Your task to perform on an android device: change notifications settings Image 0: 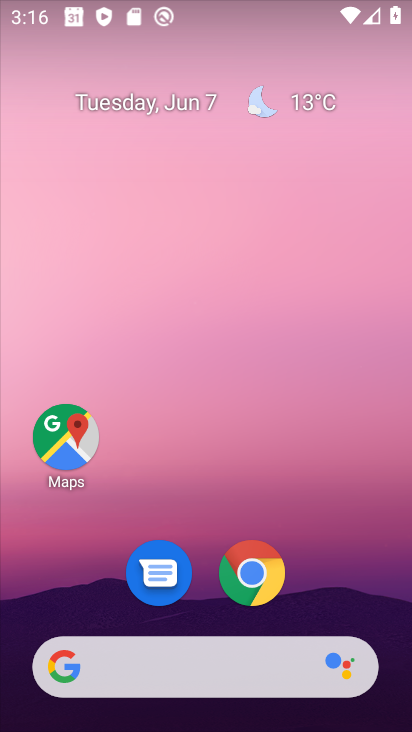
Step 0: drag from (345, 588) to (295, 257)
Your task to perform on an android device: change notifications settings Image 1: 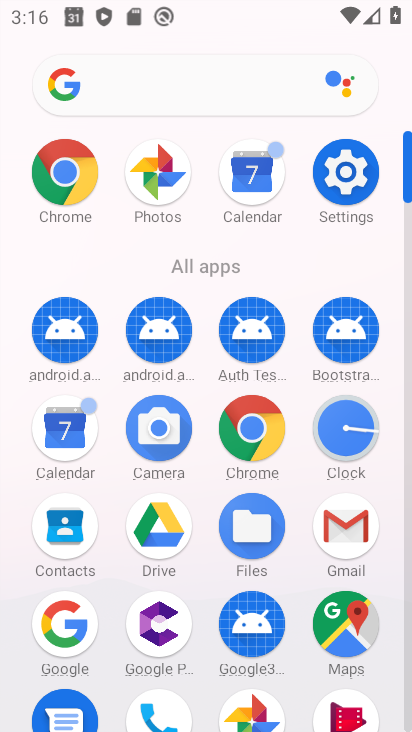
Step 1: click (339, 167)
Your task to perform on an android device: change notifications settings Image 2: 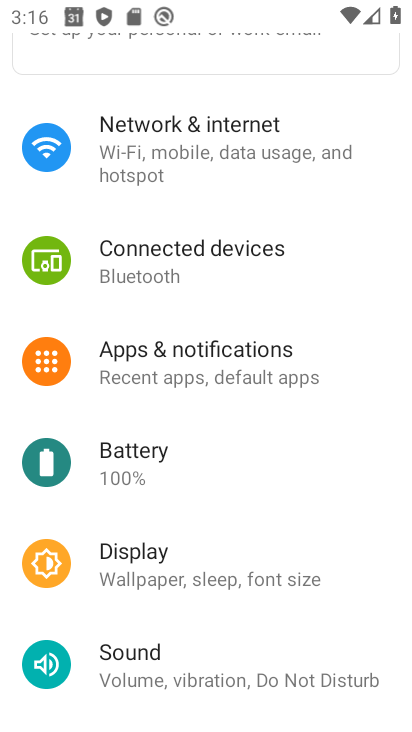
Step 2: click (301, 351)
Your task to perform on an android device: change notifications settings Image 3: 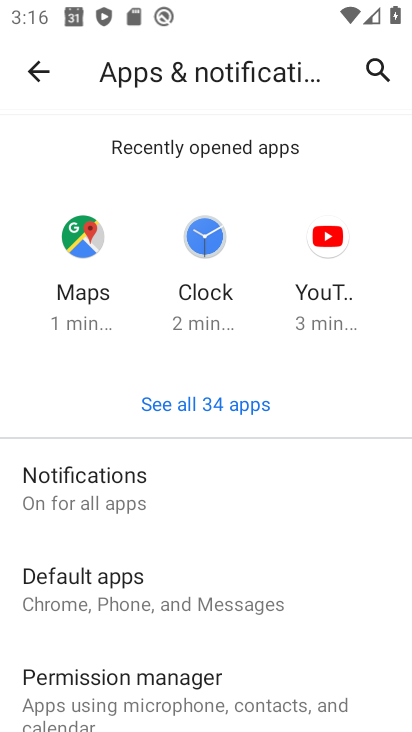
Step 3: click (260, 479)
Your task to perform on an android device: change notifications settings Image 4: 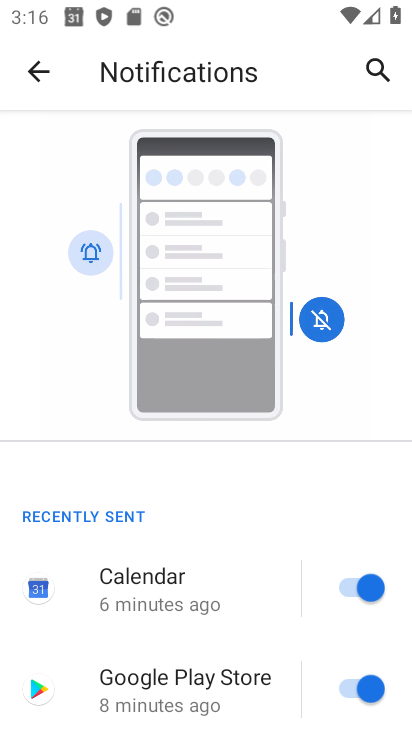
Step 4: drag from (310, 673) to (240, 122)
Your task to perform on an android device: change notifications settings Image 5: 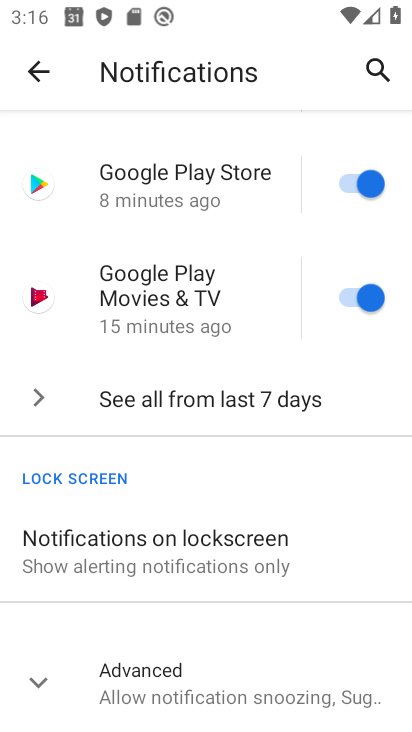
Step 5: drag from (261, 550) to (238, 431)
Your task to perform on an android device: change notifications settings Image 6: 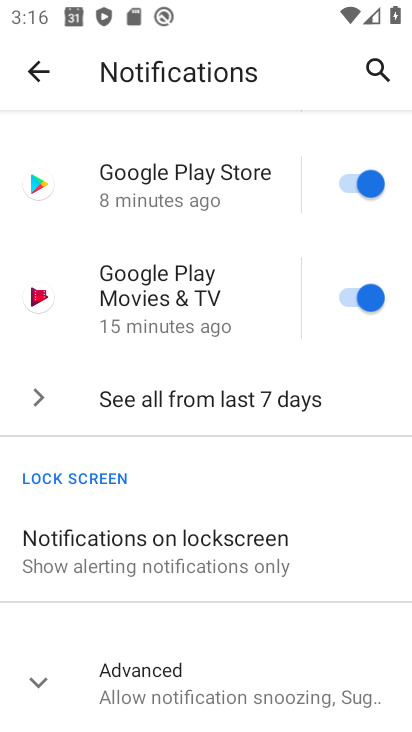
Step 6: click (275, 673)
Your task to perform on an android device: change notifications settings Image 7: 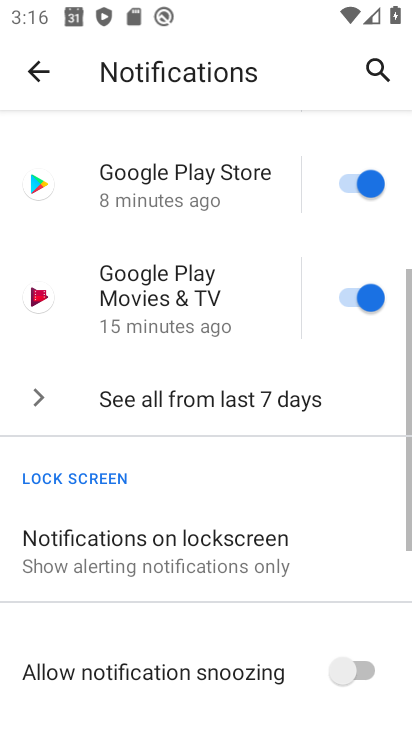
Step 7: drag from (275, 673) to (221, 285)
Your task to perform on an android device: change notifications settings Image 8: 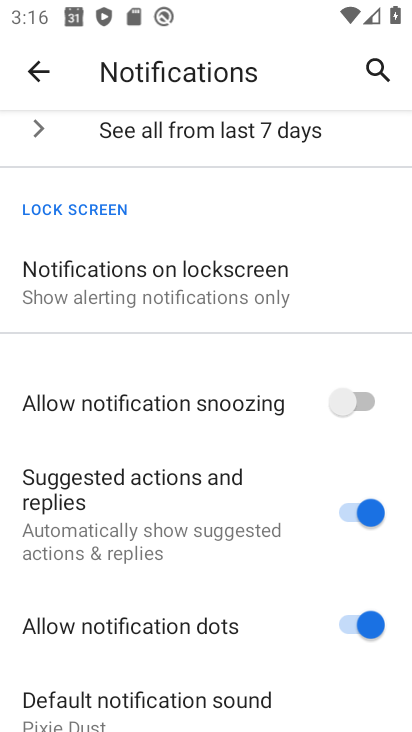
Step 8: click (382, 509)
Your task to perform on an android device: change notifications settings Image 9: 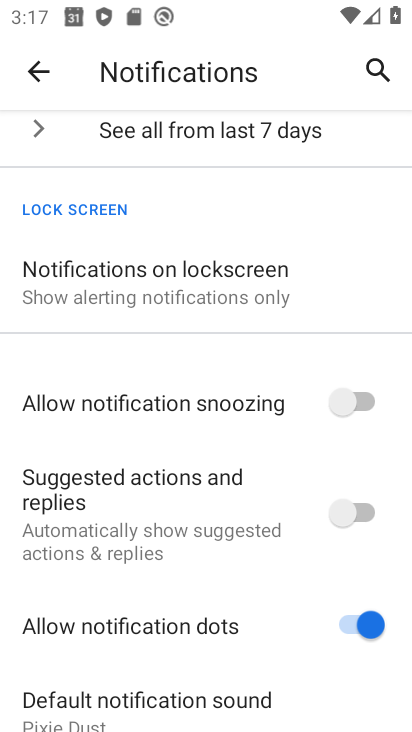
Step 9: click (362, 618)
Your task to perform on an android device: change notifications settings Image 10: 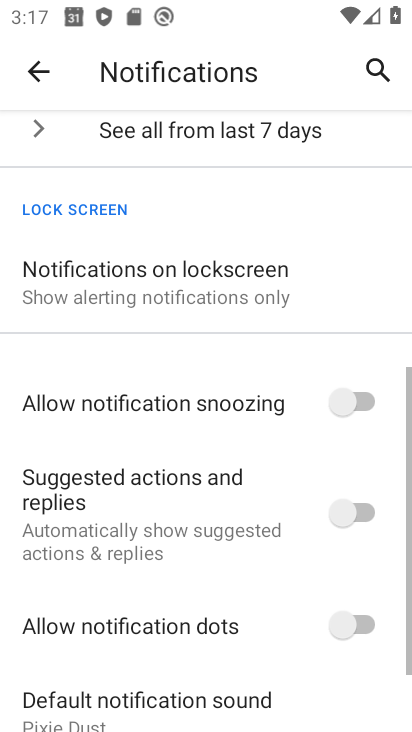
Step 10: click (348, 404)
Your task to perform on an android device: change notifications settings Image 11: 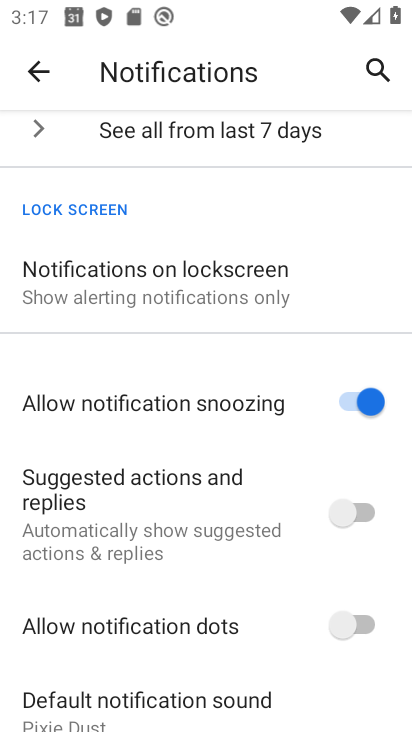
Step 11: task complete